Your task to perform on an android device: Go to Wikipedia Image 0: 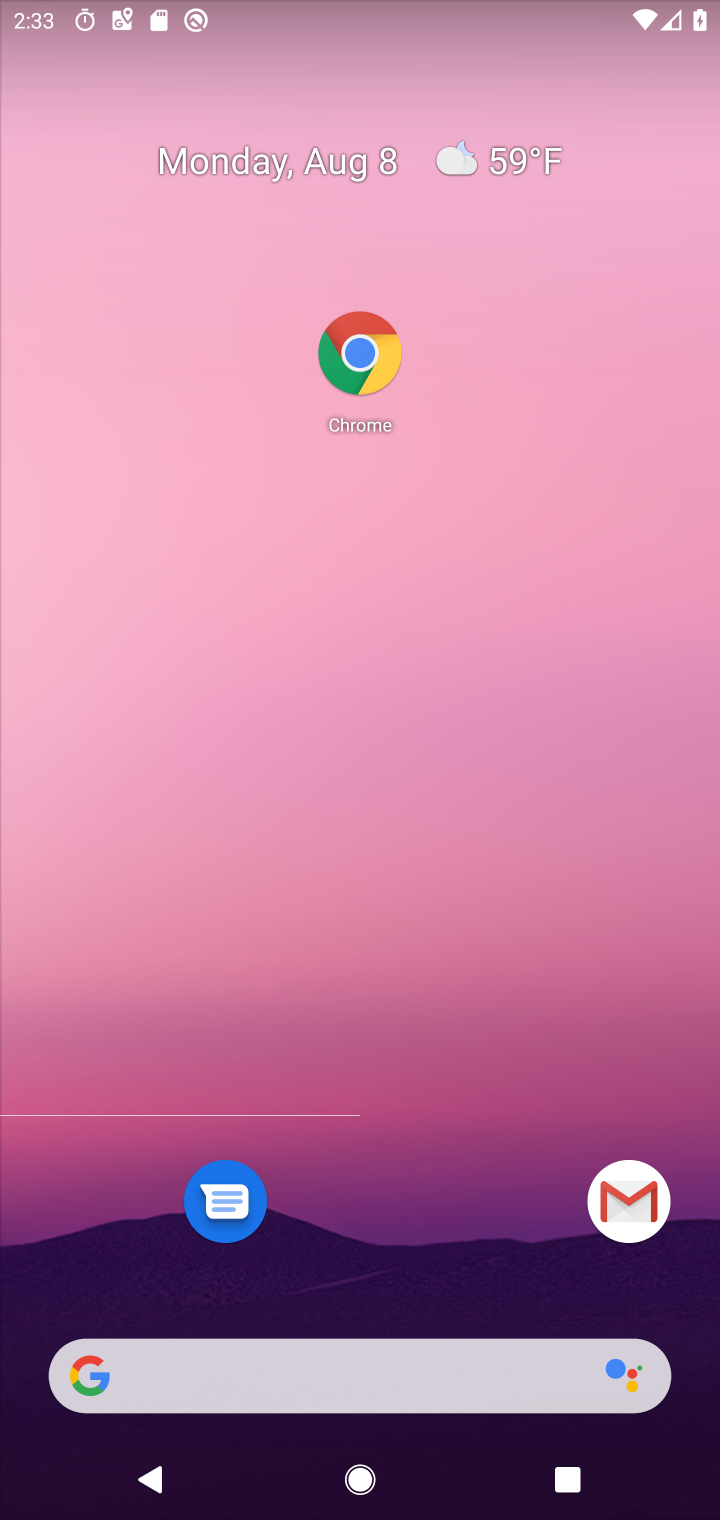
Step 0: press home button
Your task to perform on an android device: Go to Wikipedia Image 1: 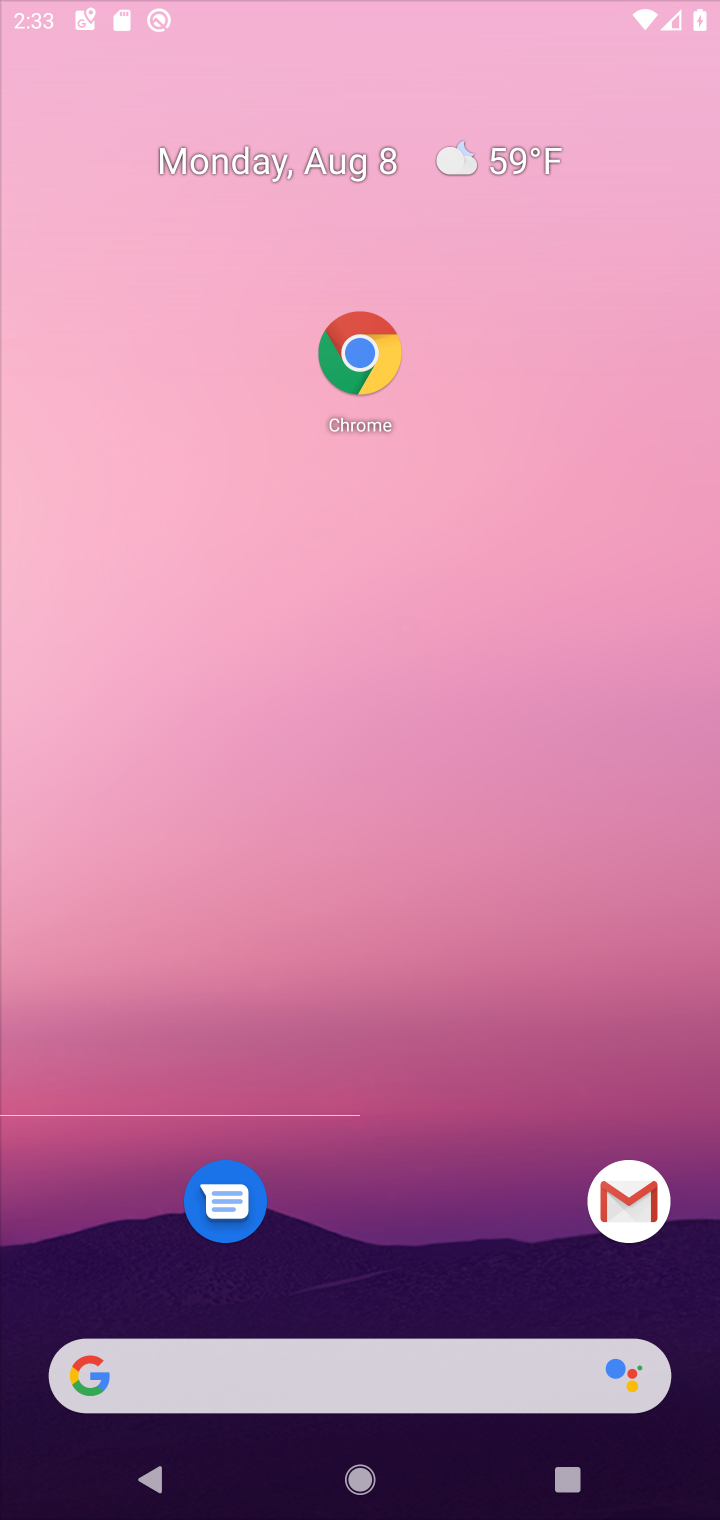
Step 1: drag from (430, 1431) to (488, 327)
Your task to perform on an android device: Go to Wikipedia Image 2: 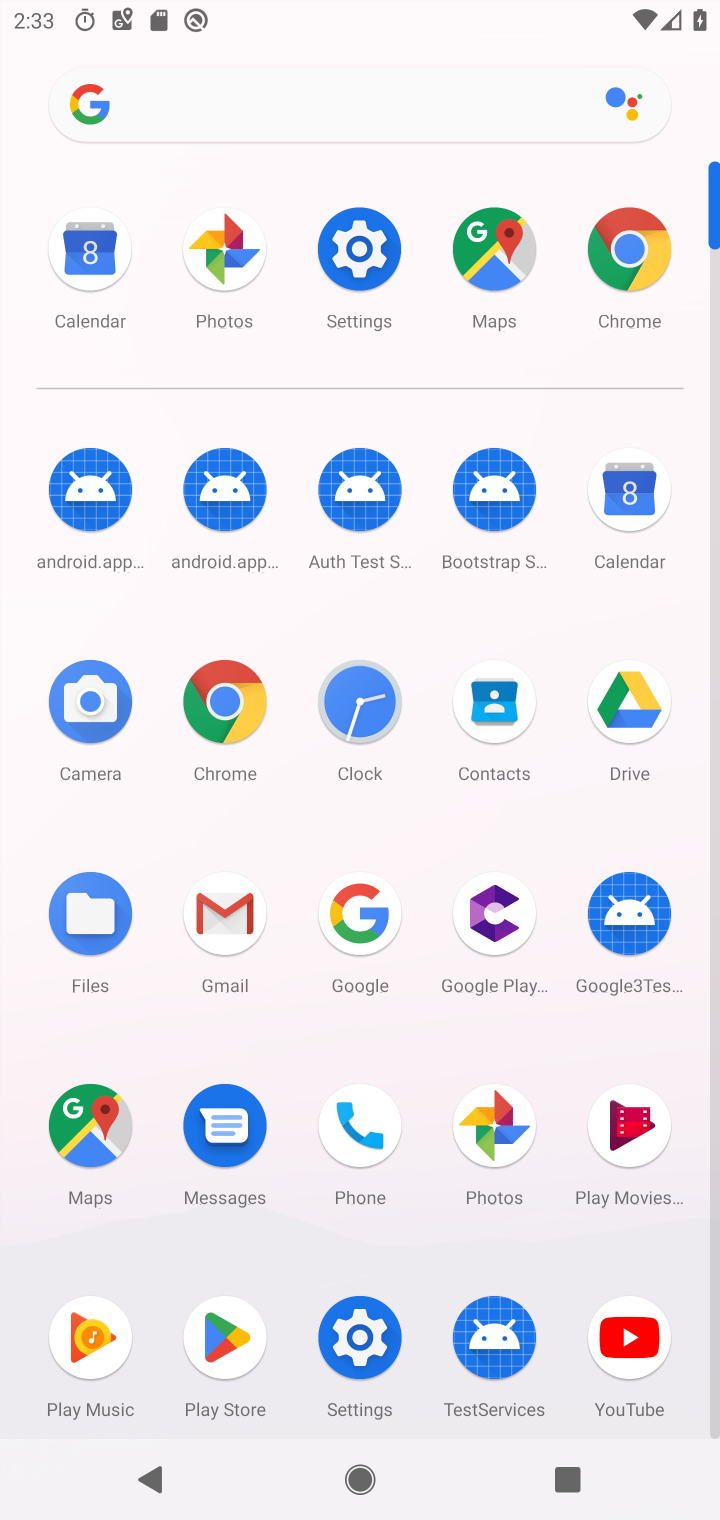
Step 2: click (610, 256)
Your task to perform on an android device: Go to Wikipedia Image 3: 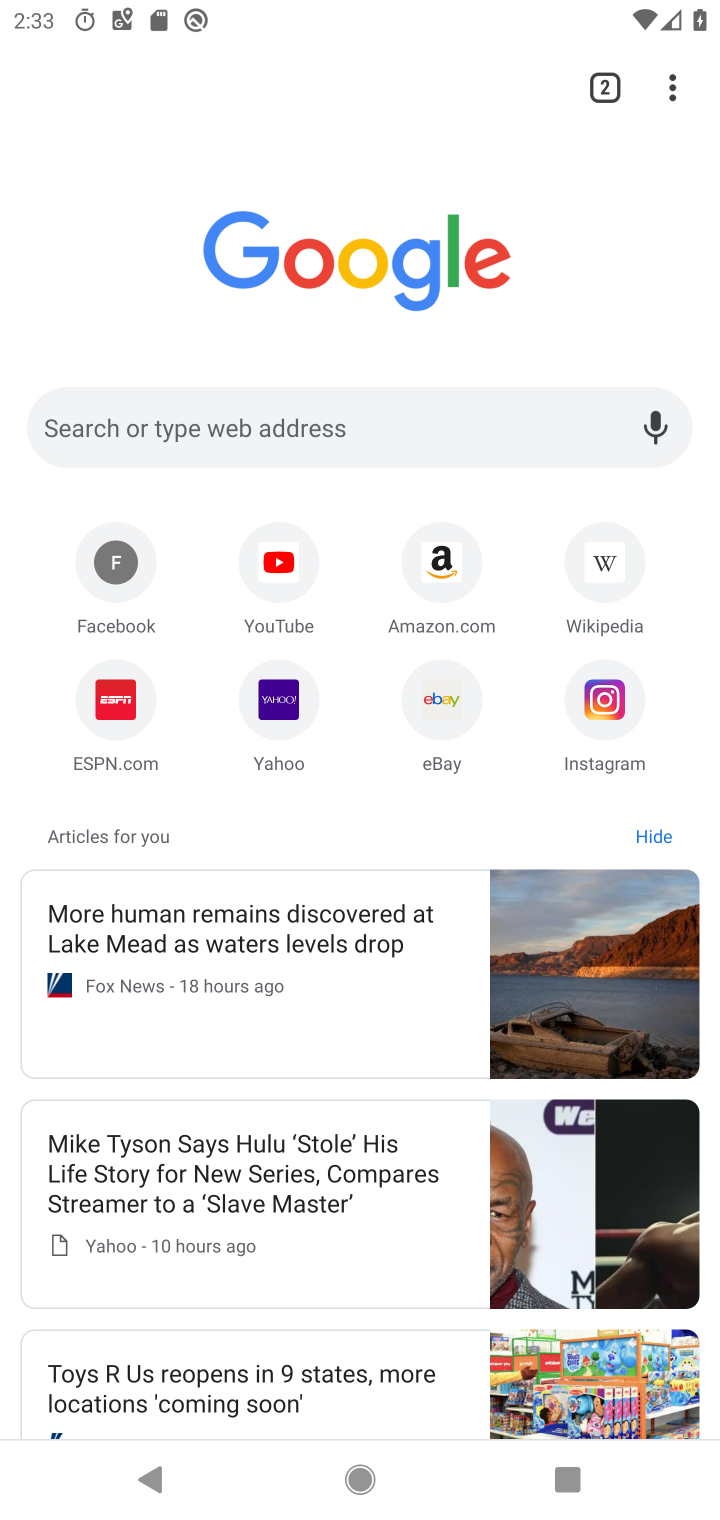
Step 3: click (589, 569)
Your task to perform on an android device: Go to Wikipedia Image 4: 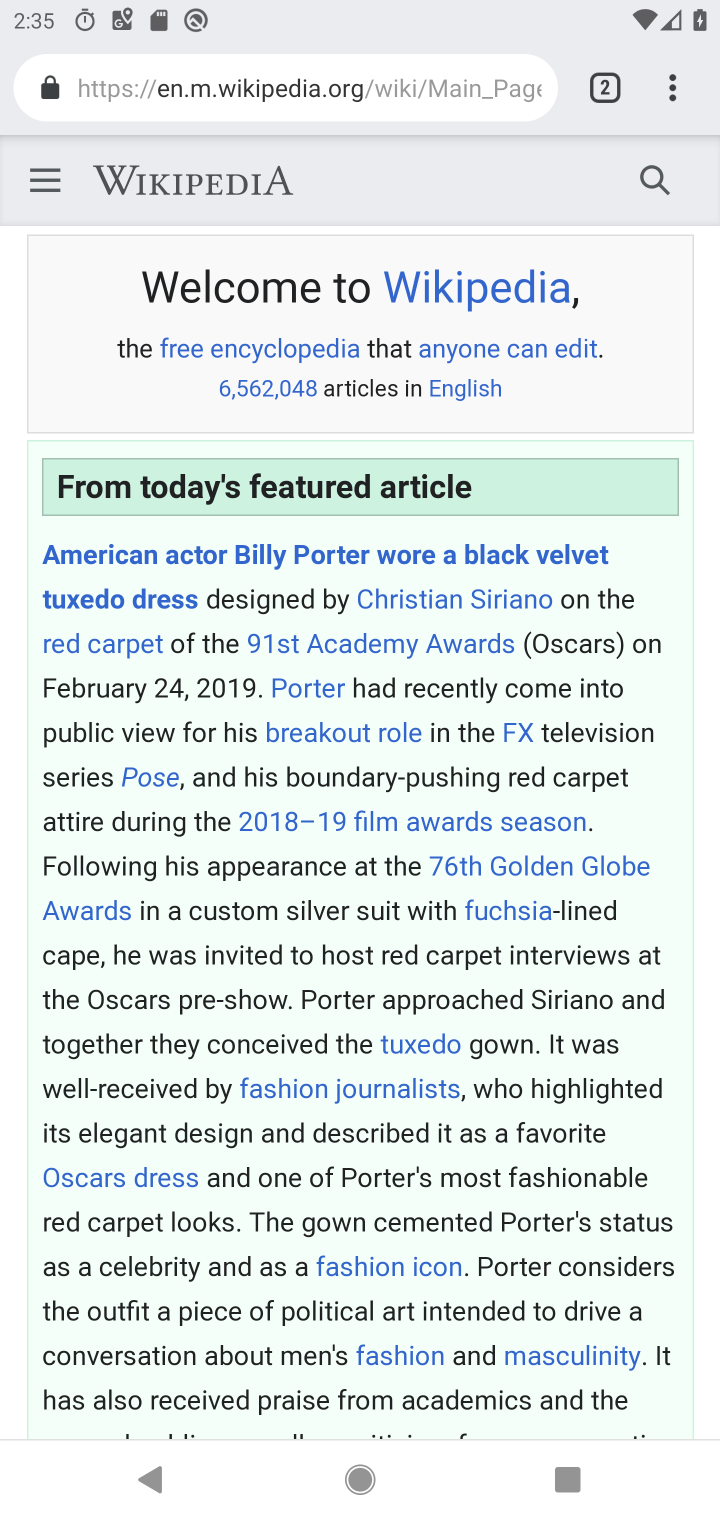
Step 4: task complete